Your task to perform on an android device: What is the news today? Image 0: 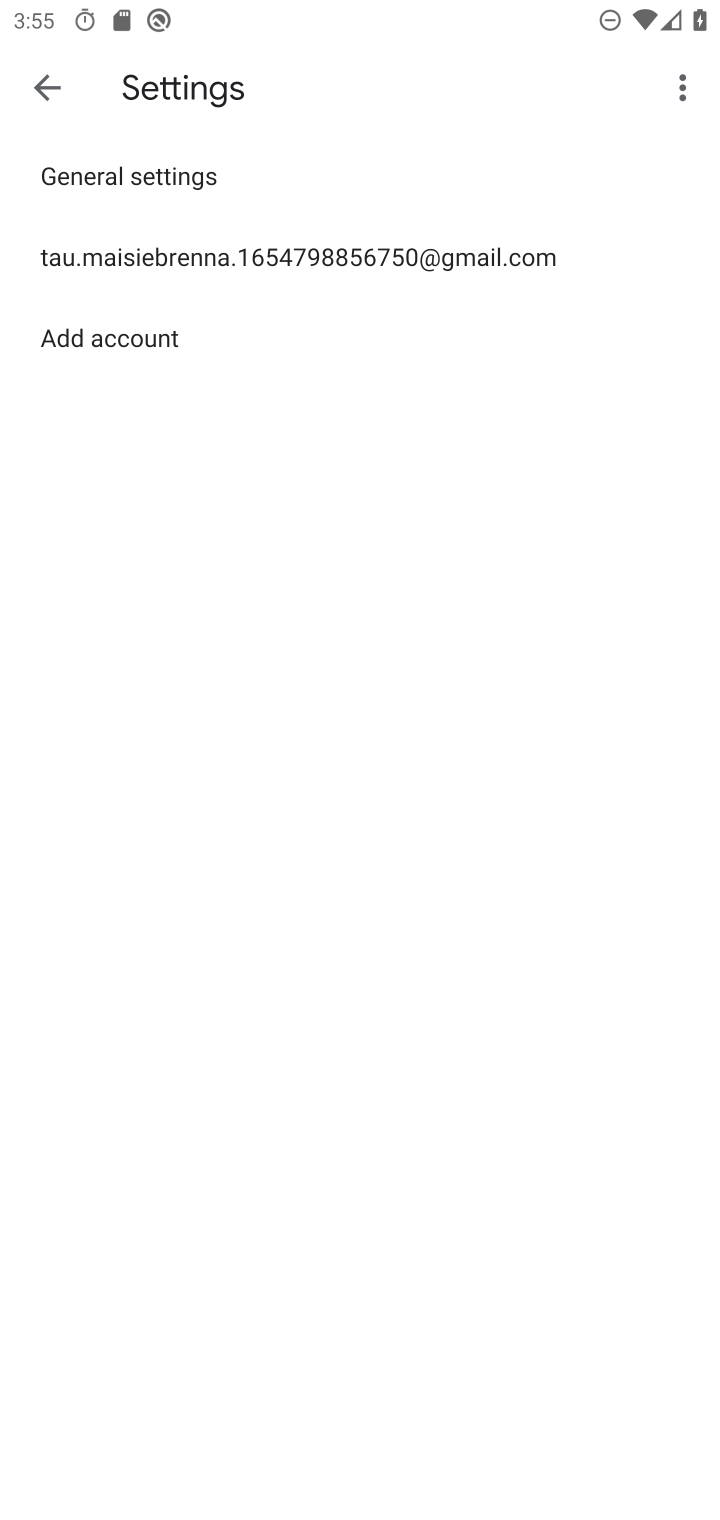
Step 0: press home button
Your task to perform on an android device: What is the news today? Image 1: 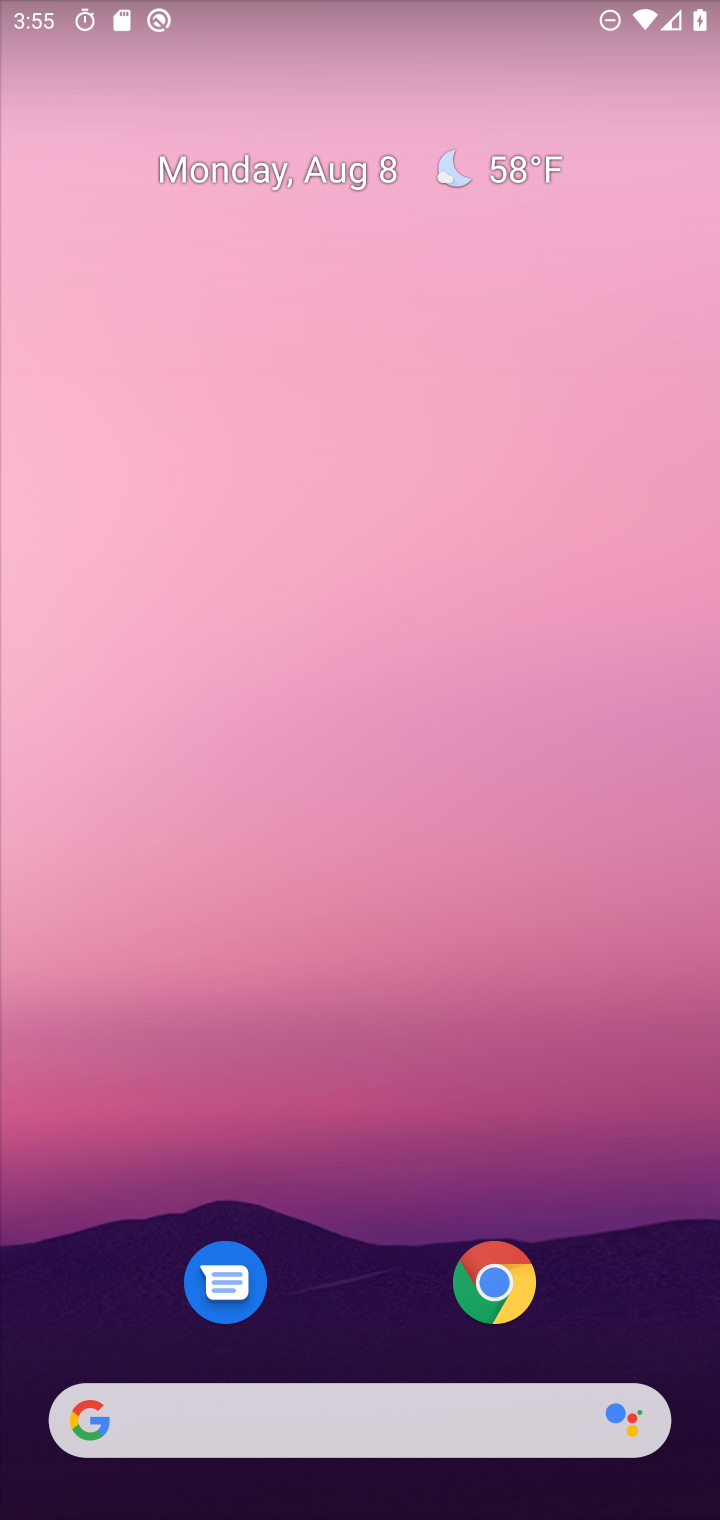
Step 1: drag from (332, 1245) to (402, 205)
Your task to perform on an android device: What is the news today? Image 2: 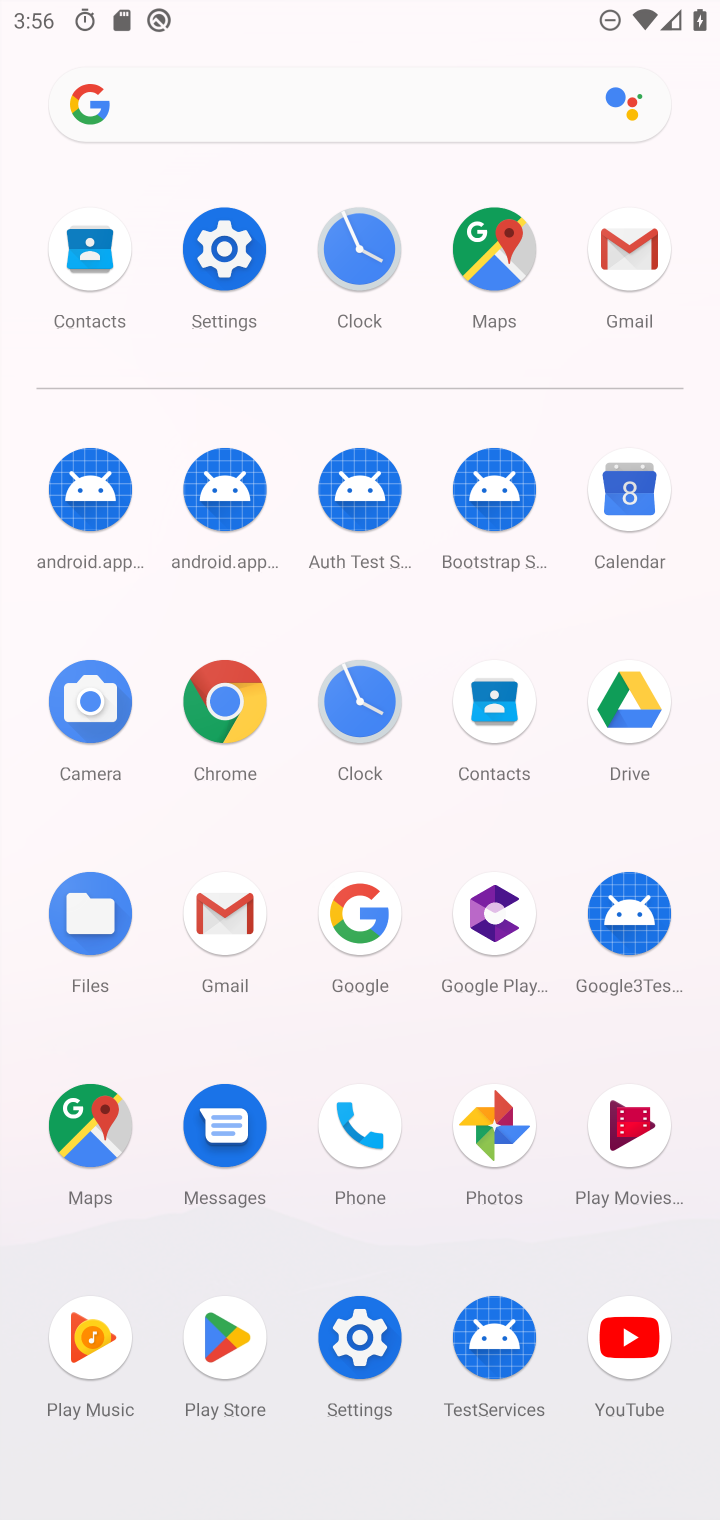
Step 2: click (218, 699)
Your task to perform on an android device: What is the news today? Image 3: 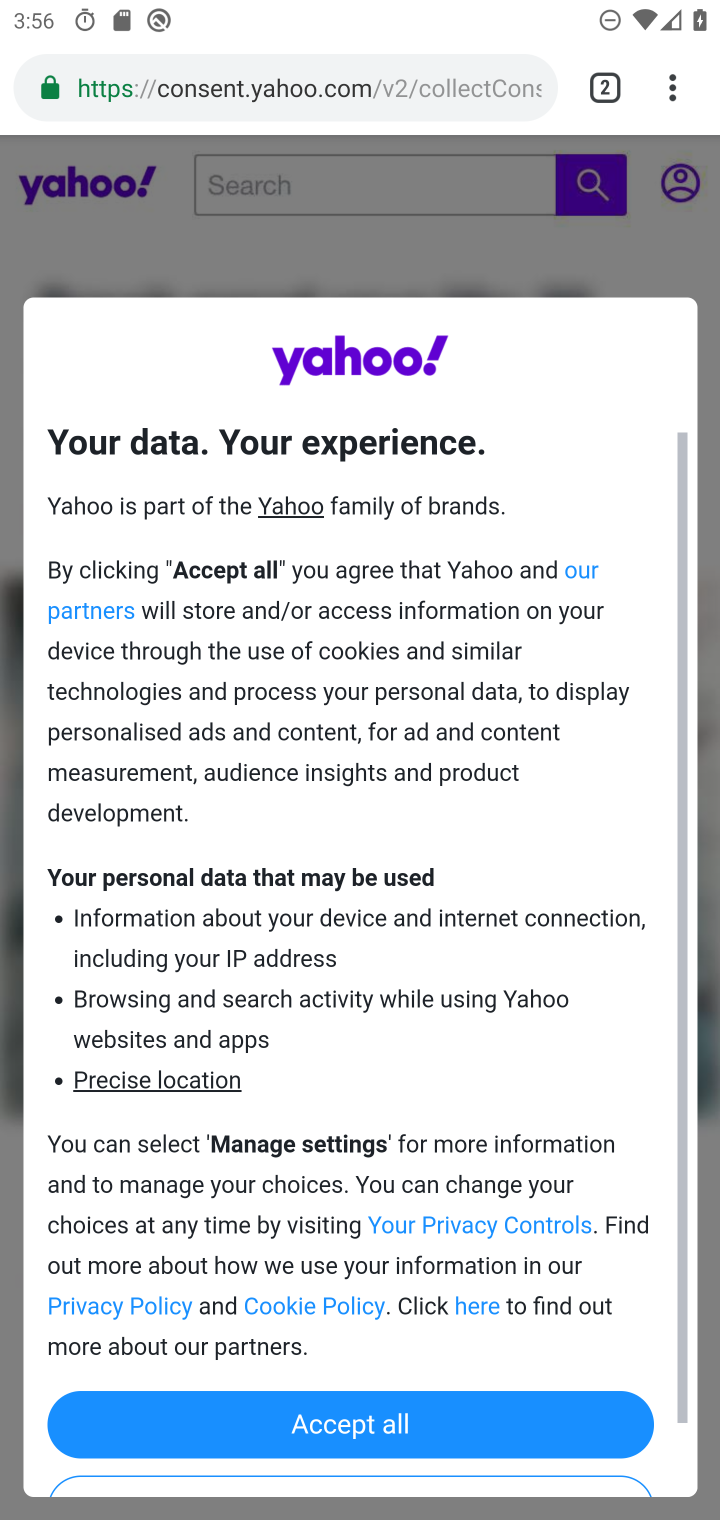
Step 3: click (394, 85)
Your task to perform on an android device: What is the news today? Image 4: 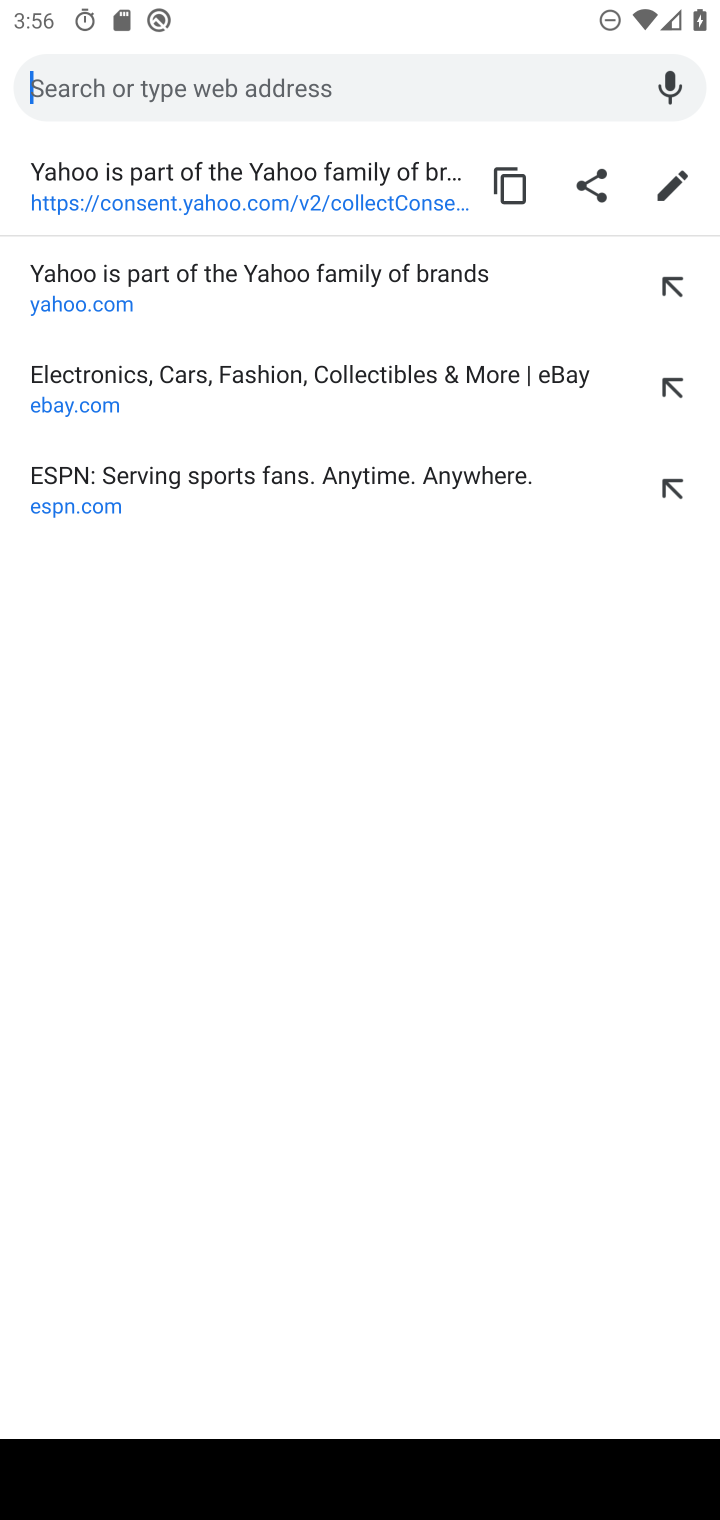
Step 4: type "news"
Your task to perform on an android device: What is the news today? Image 5: 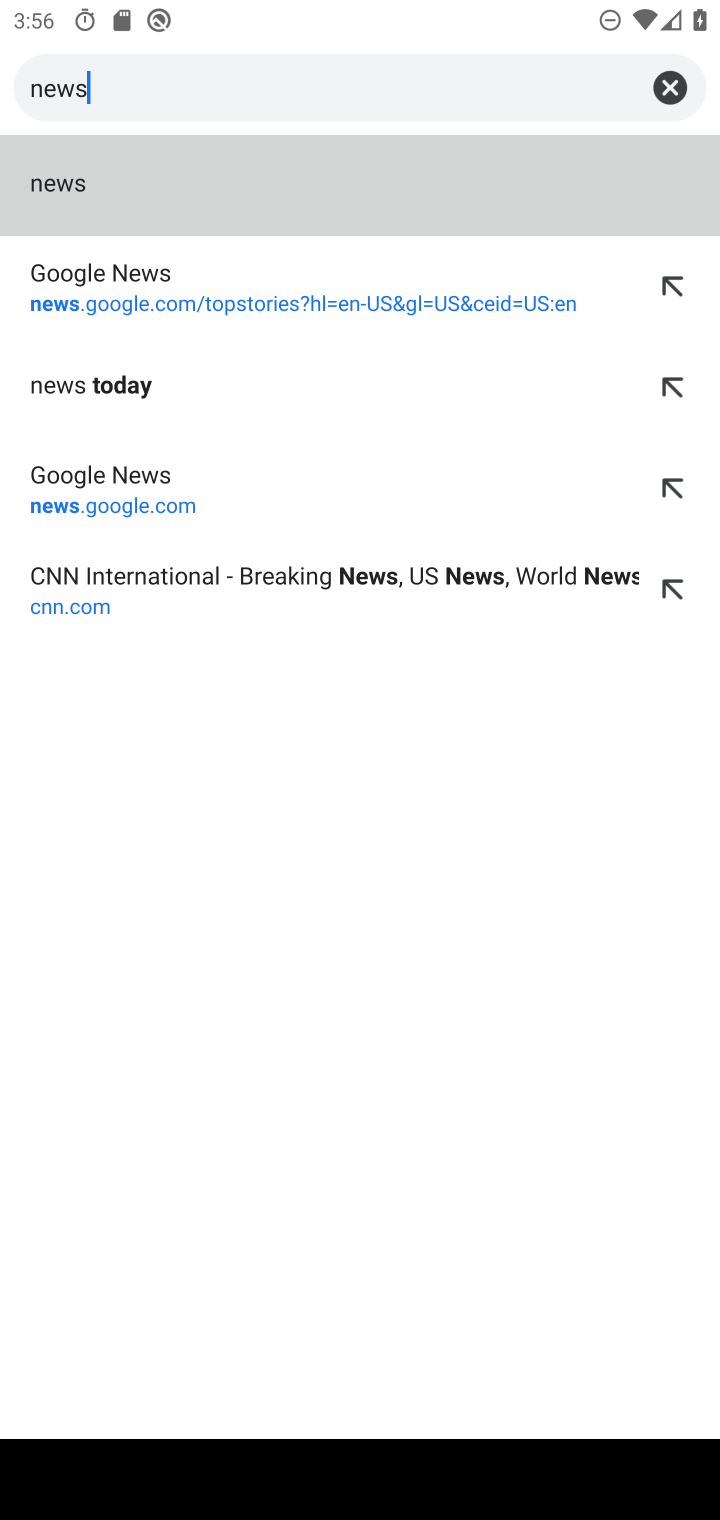
Step 5: press enter
Your task to perform on an android device: What is the news today? Image 6: 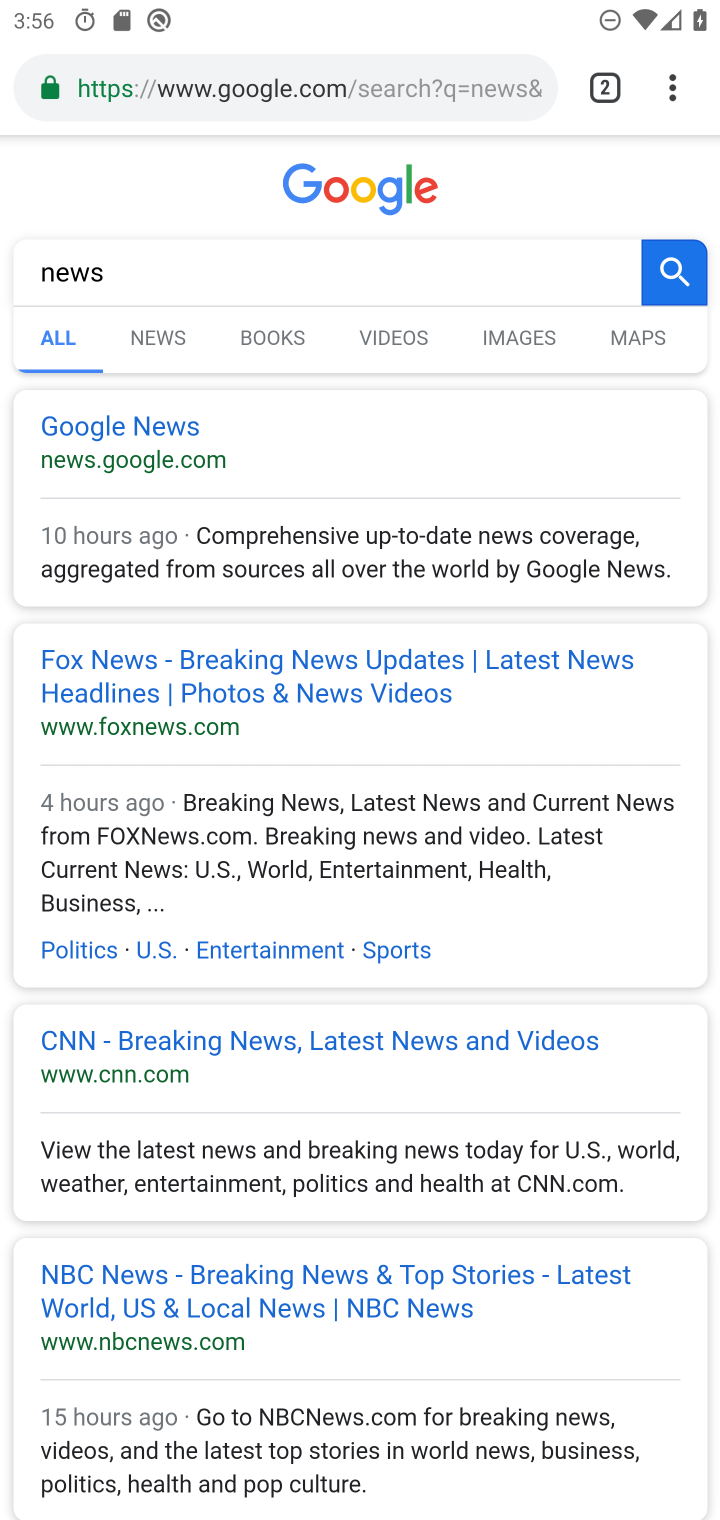
Step 6: click (155, 420)
Your task to perform on an android device: What is the news today? Image 7: 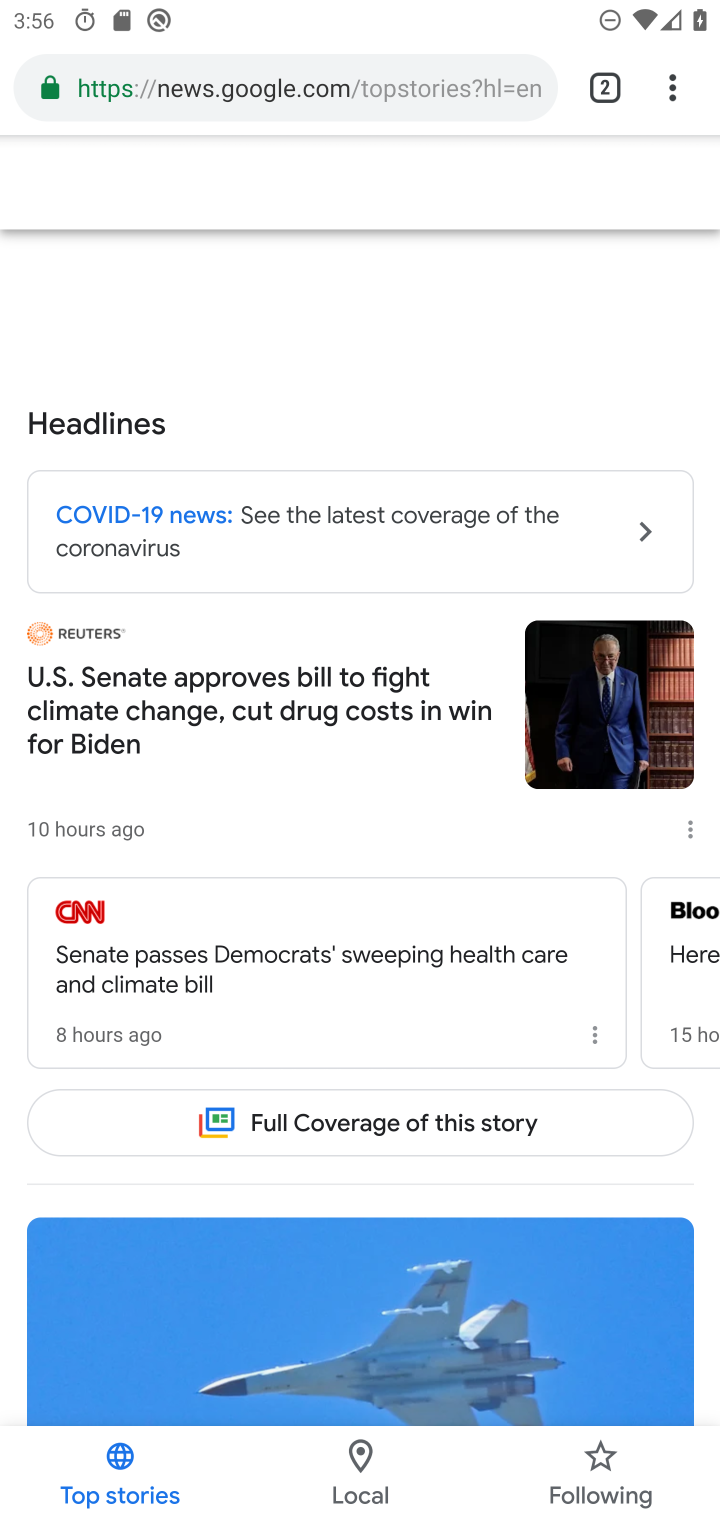
Step 7: task complete